Your task to perform on an android device: toggle translation in the chrome app Image 0: 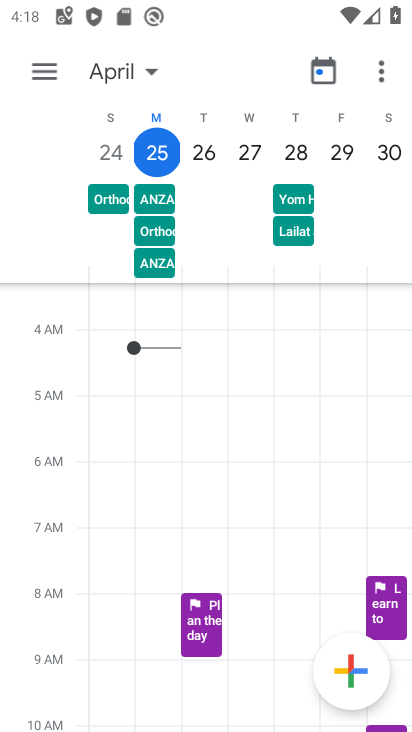
Step 0: press home button
Your task to perform on an android device: toggle translation in the chrome app Image 1: 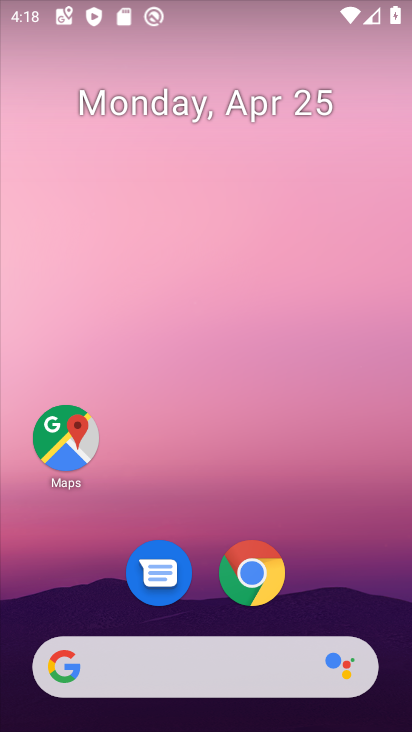
Step 1: click (269, 580)
Your task to perform on an android device: toggle translation in the chrome app Image 2: 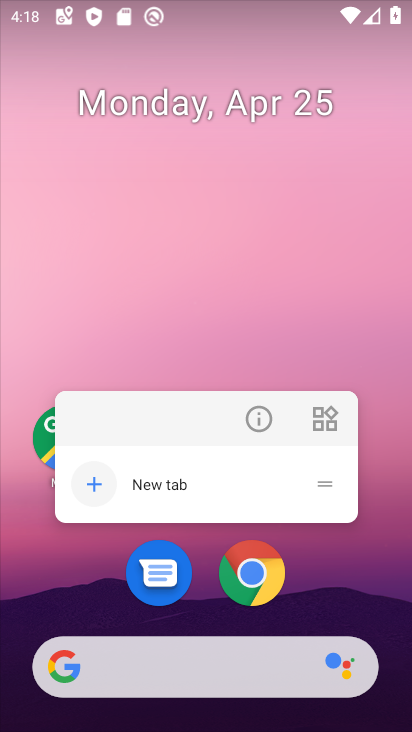
Step 2: click (256, 587)
Your task to perform on an android device: toggle translation in the chrome app Image 3: 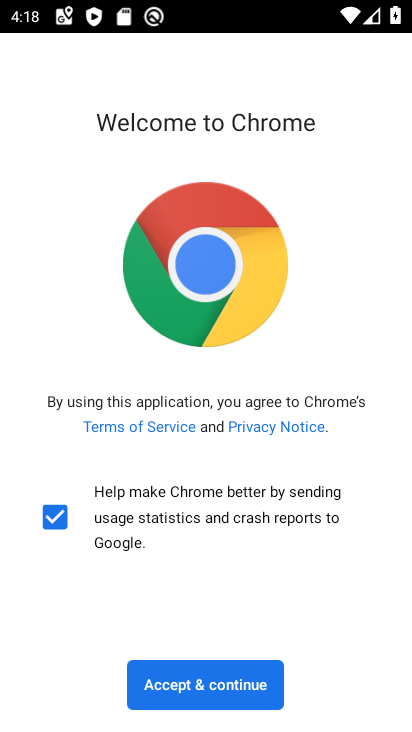
Step 3: click (216, 685)
Your task to perform on an android device: toggle translation in the chrome app Image 4: 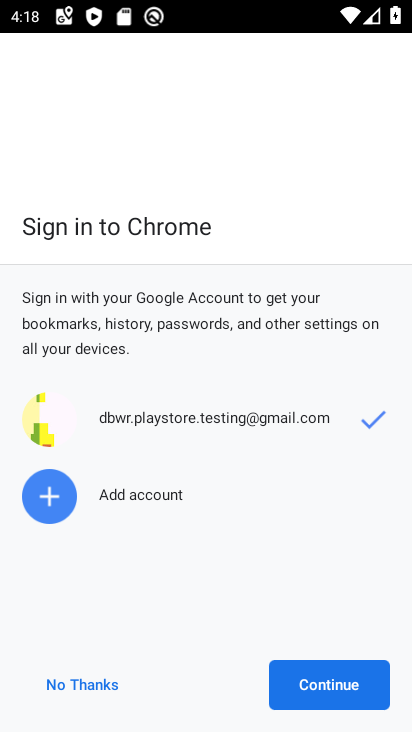
Step 4: click (290, 675)
Your task to perform on an android device: toggle translation in the chrome app Image 5: 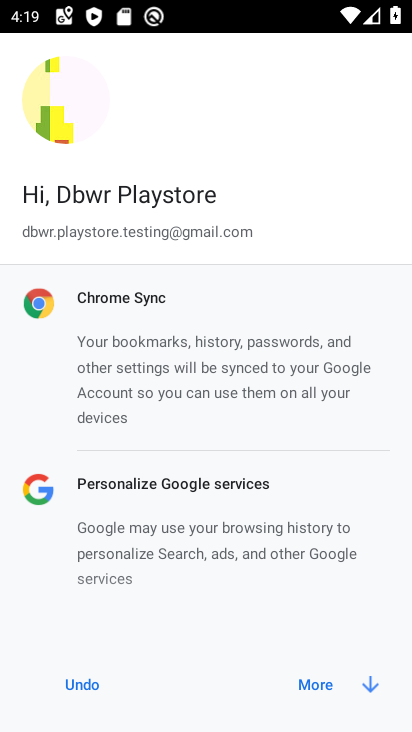
Step 5: click (312, 685)
Your task to perform on an android device: toggle translation in the chrome app Image 6: 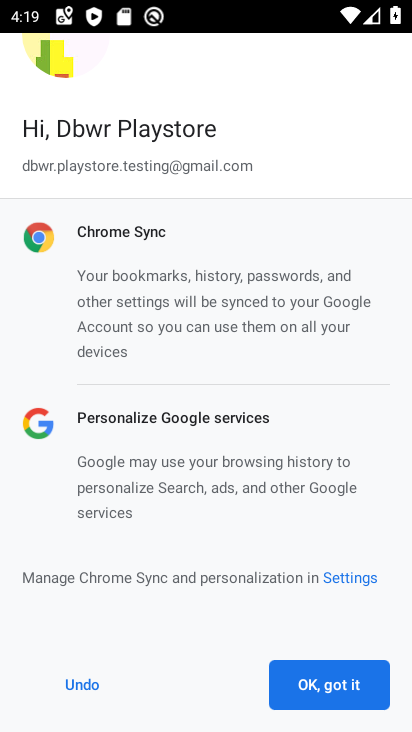
Step 6: click (312, 685)
Your task to perform on an android device: toggle translation in the chrome app Image 7: 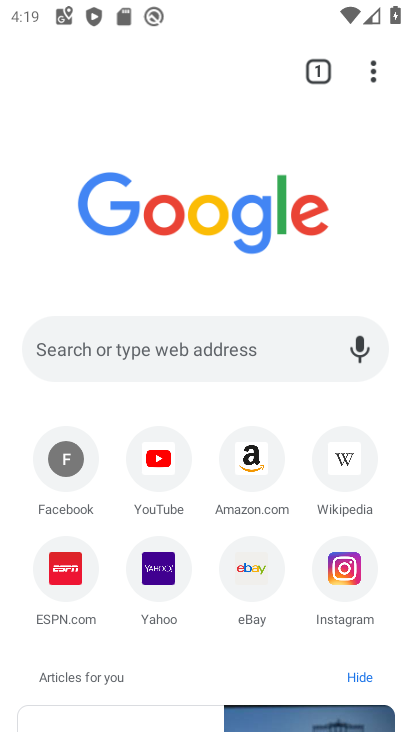
Step 7: click (371, 71)
Your task to perform on an android device: toggle translation in the chrome app Image 8: 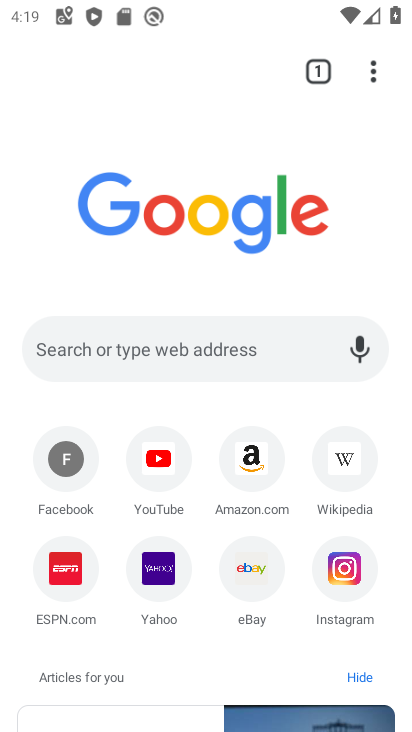
Step 8: click (372, 76)
Your task to perform on an android device: toggle translation in the chrome app Image 9: 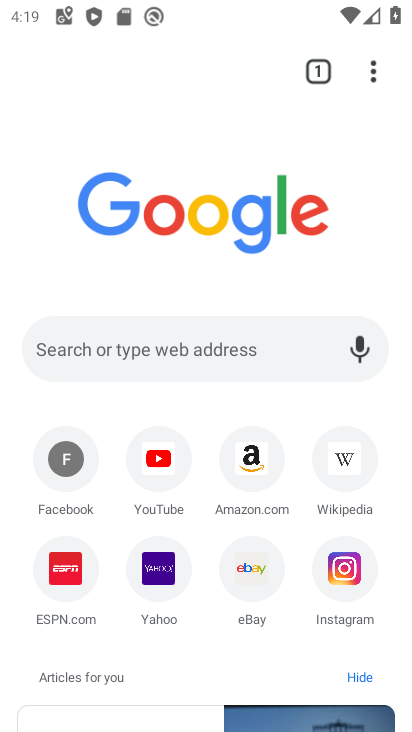
Step 9: click (374, 71)
Your task to perform on an android device: toggle translation in the chrome app Image 10: 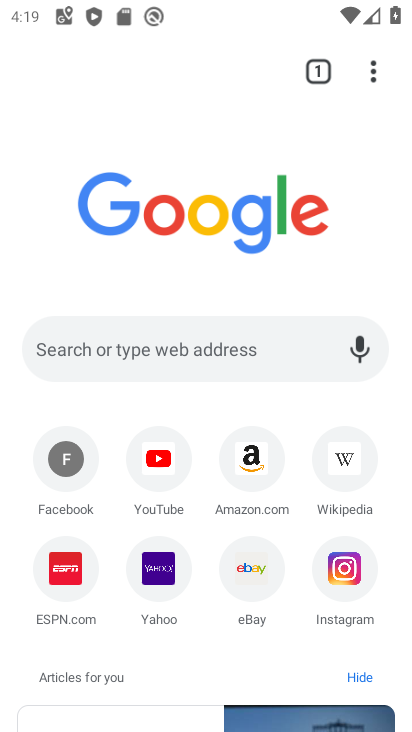
Step 10: click (351, 74)
Your task to perform on an android device: toggle translation in the chrome app Image 11: 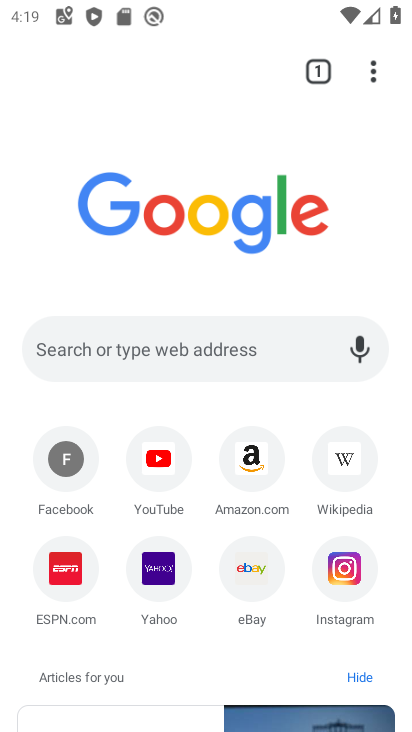
Step 11: click (369, 73)
Your task to perform on an android device: toggle translation in the chrome app Image 12: 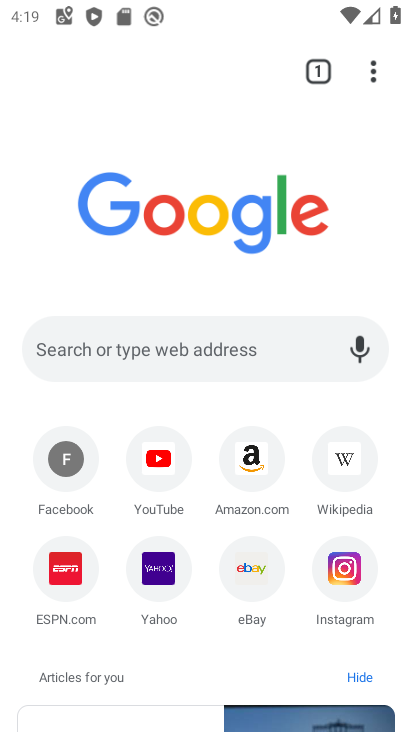
Step 12: click (371, 72)
Your task to perform on an android device: toggle translation in the chrome app Image 13: 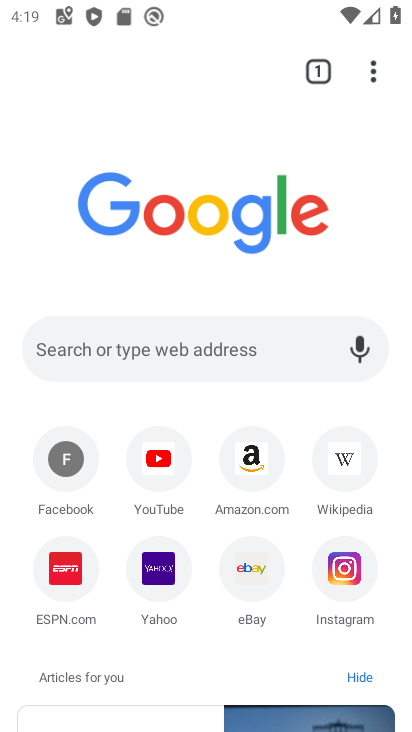
Step 13: click (383, 85)
Your task to perform on an android device: toggle translation in the chrome app Image 14: 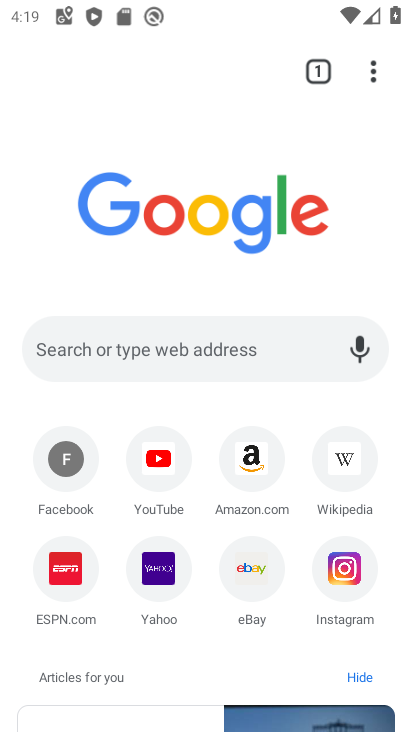
Step 14: click (382, 84)
Your task to perform on an android device: toggle translation in the chrome app Image 15: 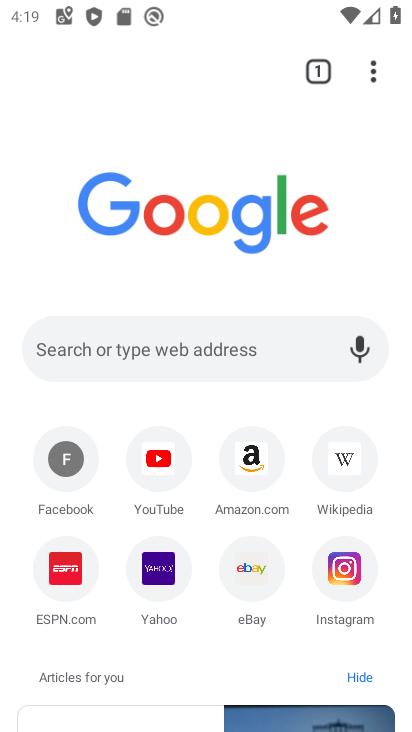
Step 15: click (204, 97)
Your task to perform on an android device: toggle translation in the chrome app Image 16: 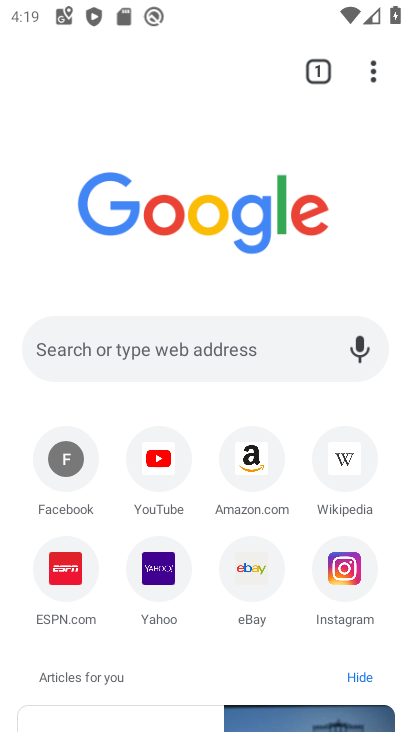
Step 16: click (368, 77)
Your task to perform on an android device: toggle translation in the chrome app Image 17: 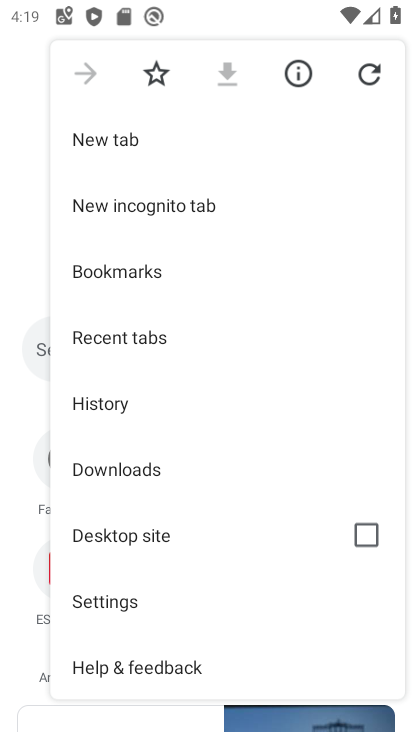
Step 17: click (121, 604)
Your task to perform on an android device: toggle translation in the chrome app Image 18: 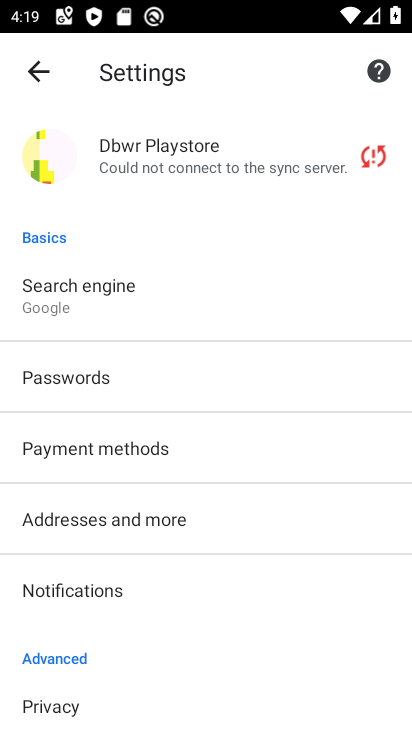
Step 18: drag from (152, 593) to (116, 213)
Your task to perform on an android device: toggle translation in the chrome app Image 19: 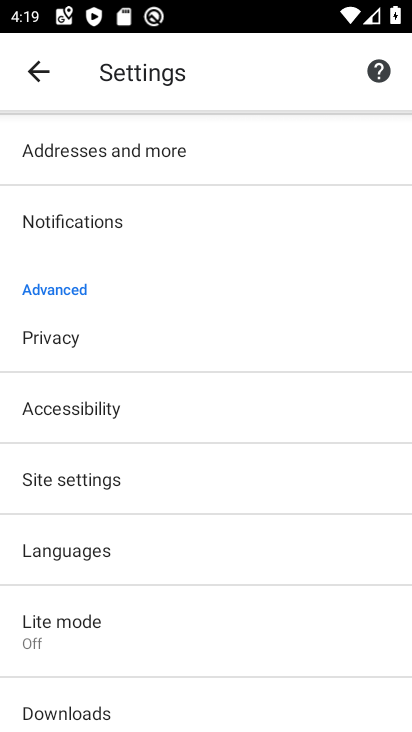
Step 19: click (85, 556)
Your task to perform on an android device: toggle translation in the chrome app Image 20: 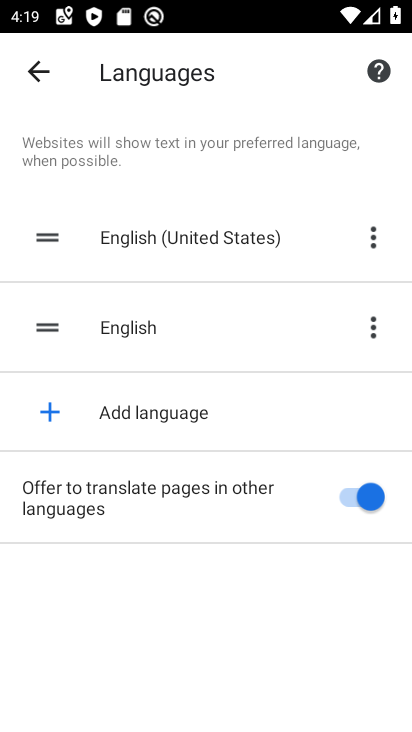
Step 20: click (370, 499)
Your task to perform on an android device: toggle translation in the chrome app Image 21: 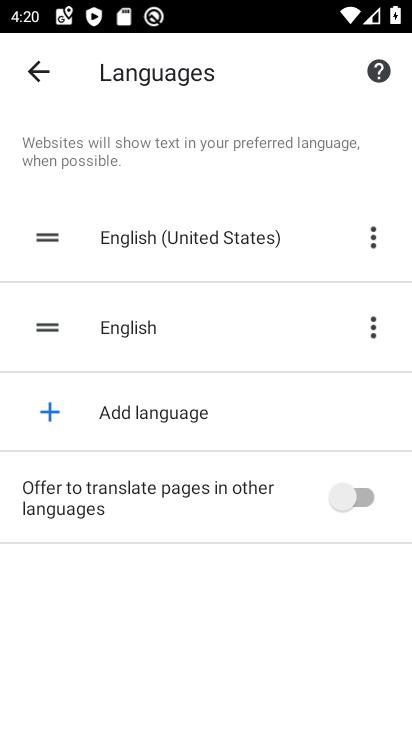
Step 21: task complete